Your task to perform on an android device: toggle pop-ups in chrome Image 0: 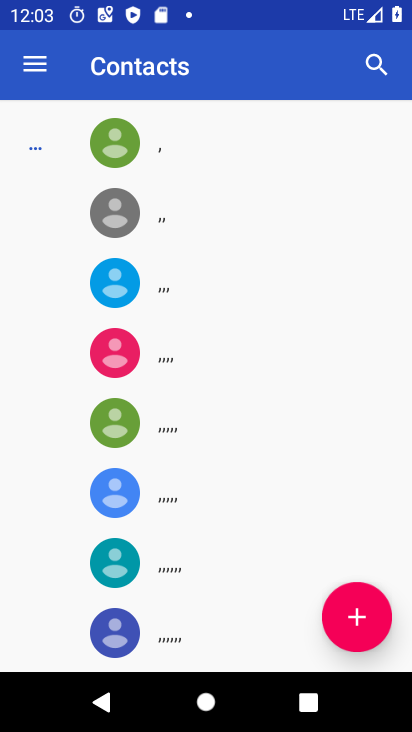
Step 0: press home button
Your task to perform on an android device: toggle pop-ups in chrome Image 1: 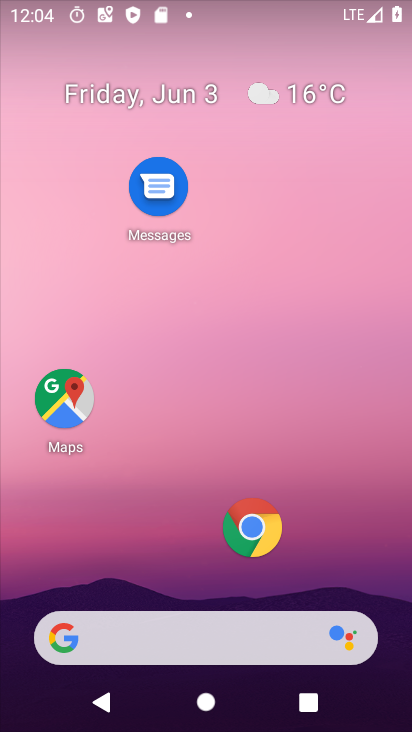
Step 1: click (256, 517)
Your task to perform on an android device: toggle pop-ups in chrome Image 2: 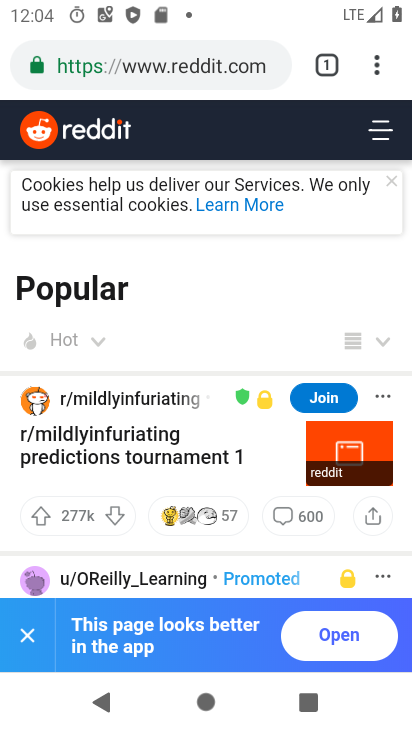
Step 2: click (375, 64)
Your task to perform on an android device: toggle pop-ups in chrome Image 3: 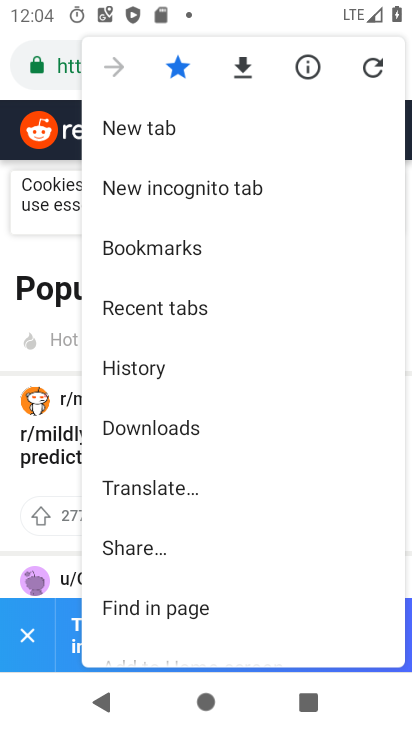
Step 3: drag from (203, 574) to (235, 129)
Your task to perform on an android device: toggle pop-ups in chrome Image 4: 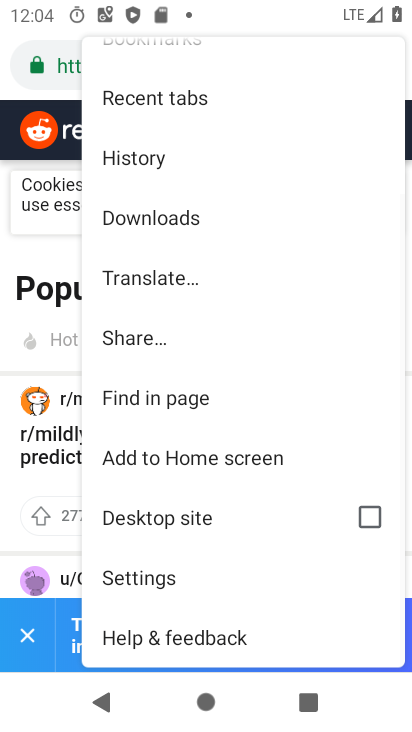
Step 4: click (190, 573)
Your task to perform on an android device: toggle pop-ups in chrome Image 5: 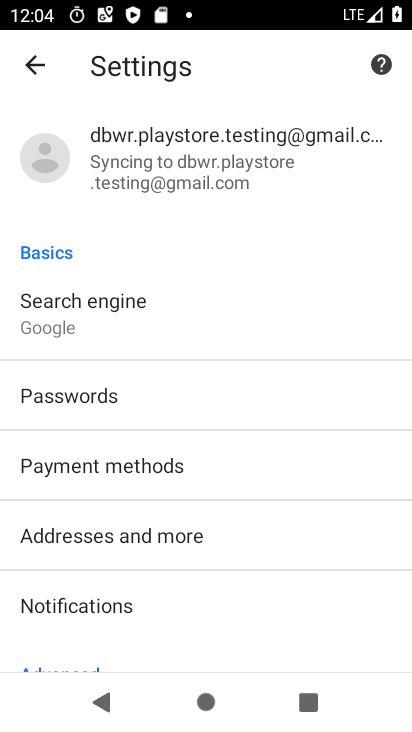
Step 5: drag from (217, 608) to (230, 227)
Your task to perform on an android device: toggle pop-ups in chrome Image 6: 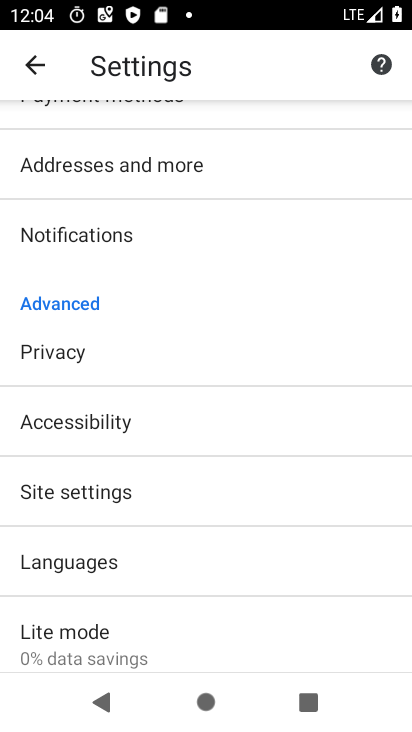
Step 6: click (153, 493)
Your task to perform on an android device: toggle pop-ups in chrome Image 7: 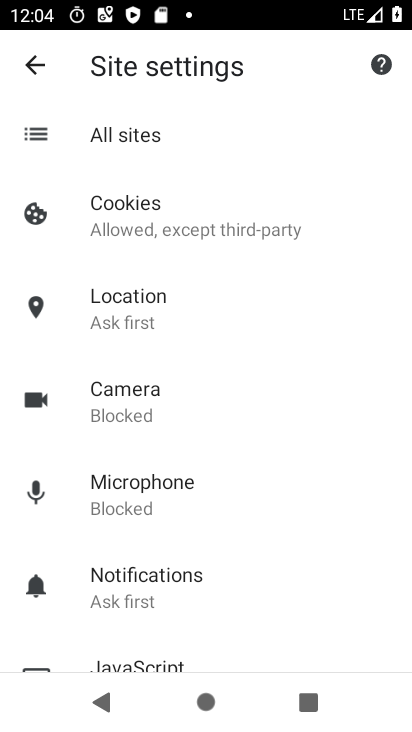
Step 7: drag from (240, 631) to (266, 276)
Your task to perform on an android device: toggle pop-ups in chrome Image 8: 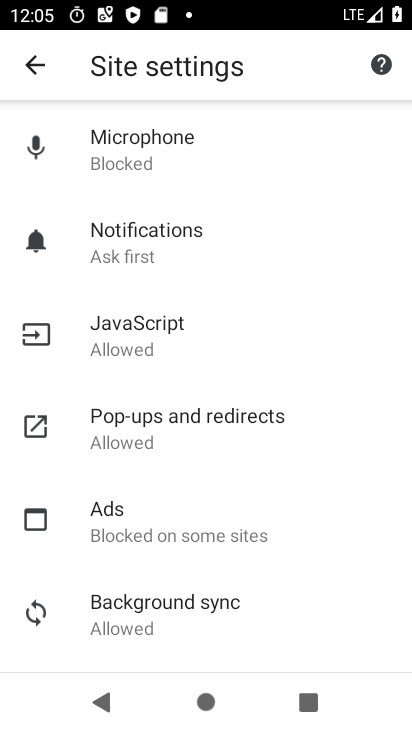
Step 8: click (179, 433)
Your task to perform on an android device: toggle pop-ups in chrome Image 9: 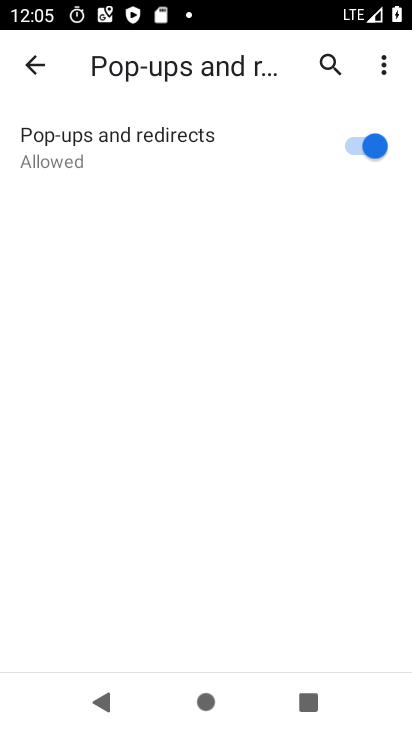
Step 9: click (358, 144)
Your task to perform on an android device: toggle pop-ups in chrome Image 10: 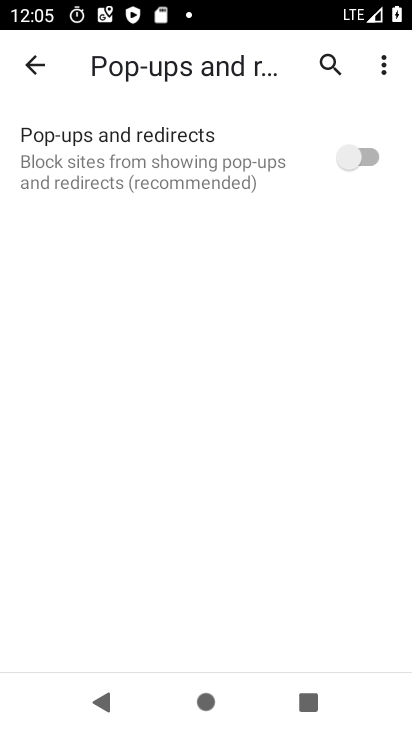
Step 10: task complete